Your task to perform on an android device: Toggle the flashlight Image 0: 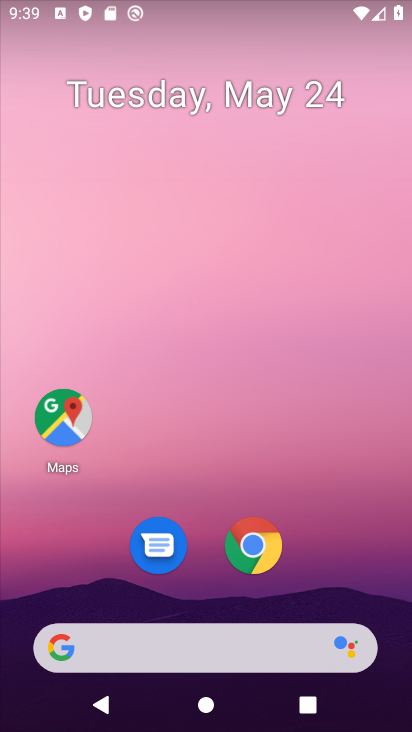
Step 0: drag from (305, 487) to (336, 55)
Your task to perform on an android device: Toggle the flashlight Image 1: 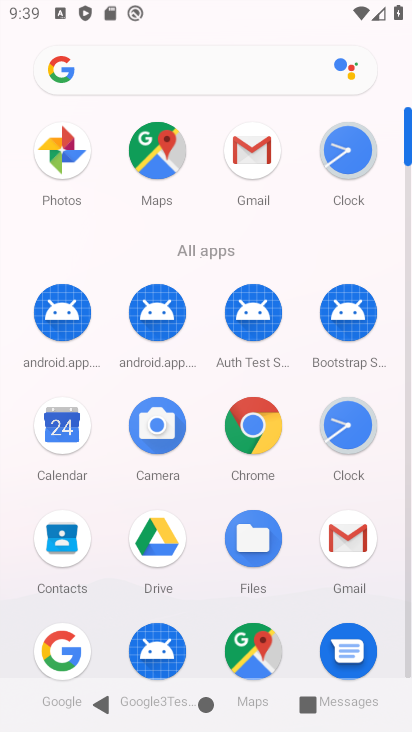
Step 1: drag from (186, 504) to (268, 75)
Your task to perform on an android device: Toggle the flashlight Image 2: 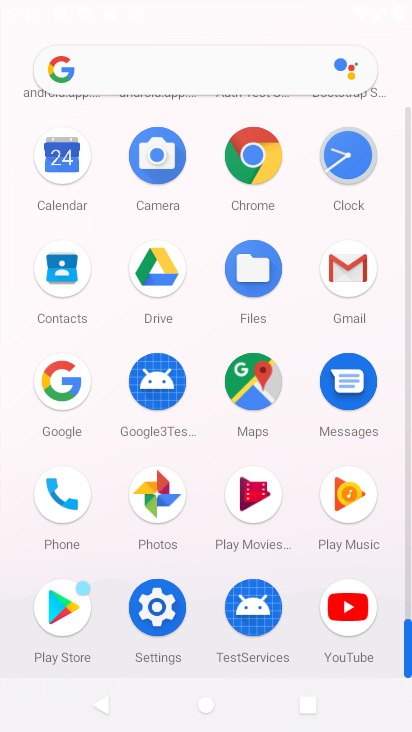
Step 2: click (169, 591)
Your task to perform on an android device: Toggle the flashlight Image 3: 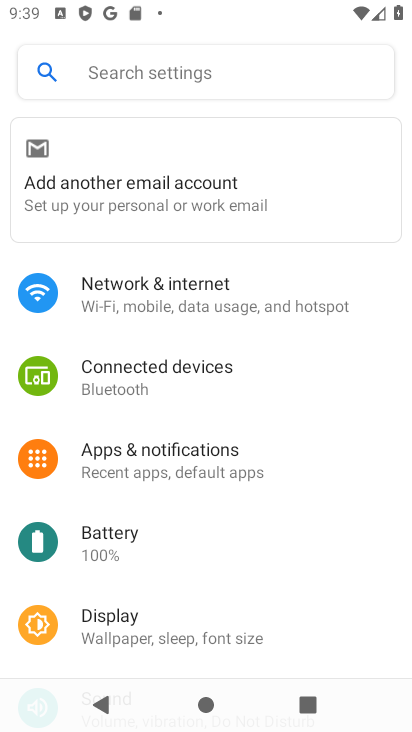
Step 3: click (294, 72)
Your task to perform on an android device: Toggle the flashlight Image 4: 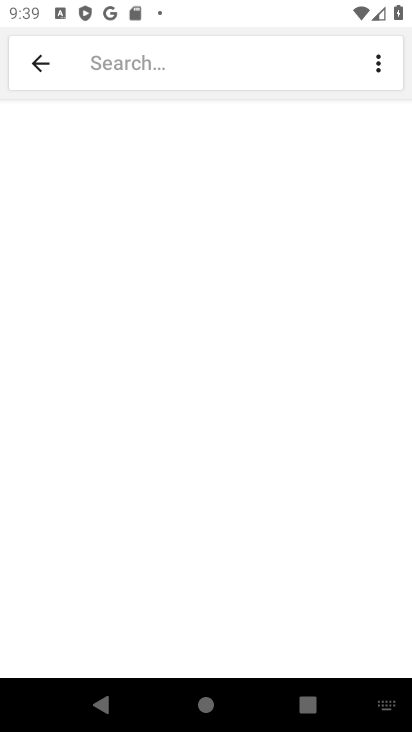
Step 4: type "Flashlight"
Your task to perform on an android device: Toggle the flashlight Image 5: 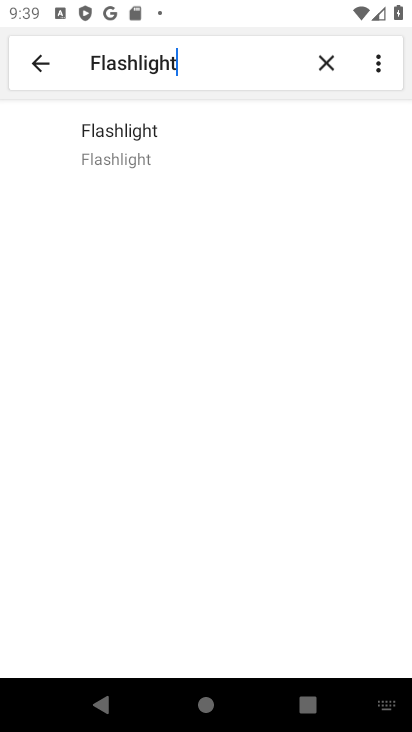
Step 5: click (107, 141)
Your task to perform on an android device: Toggle the flashlight Image 6: 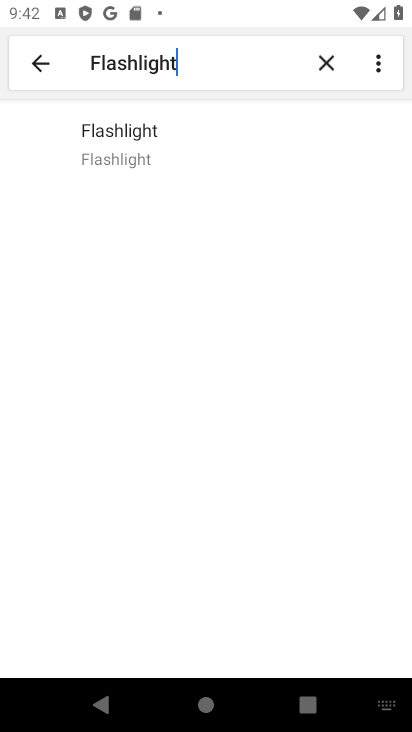
Step 6: task complete